Your task to perform on an android device: Open my contact list Image 0: 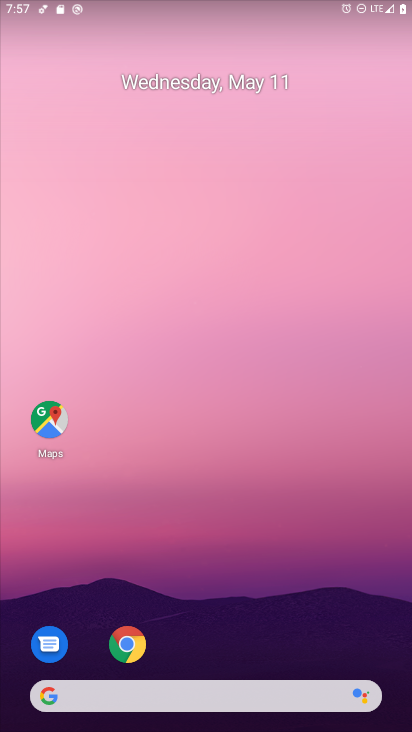
Step 0: drag from (220, 594) to (112, 136)
Your task to perform on an android device: Open my contact list Image 1: 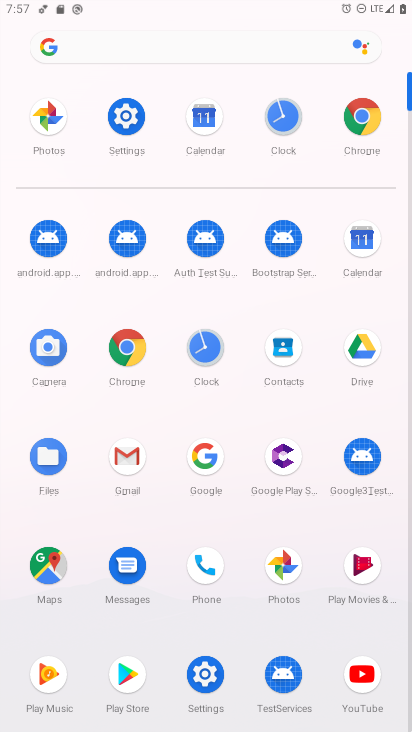
Step 1: click (279, 359)
Your task to perform on an android device: Open my contact list Image 2: 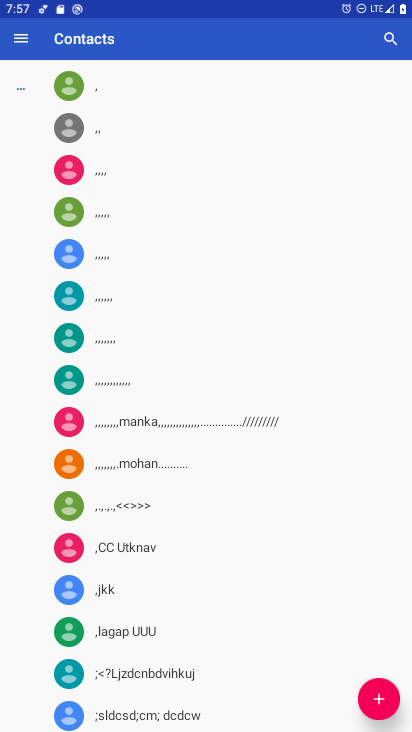
Step 2: task complete